Your task to perform on an android device: turn pop-ups on in chrome Image 0: 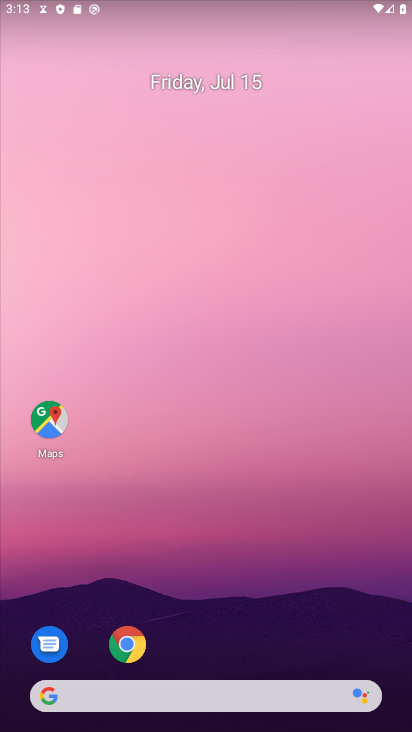
Step 0: drag from (292, 582) to (306, 126)
Your task to perform on an android device: turn pop-ups on in chrome Image 1: 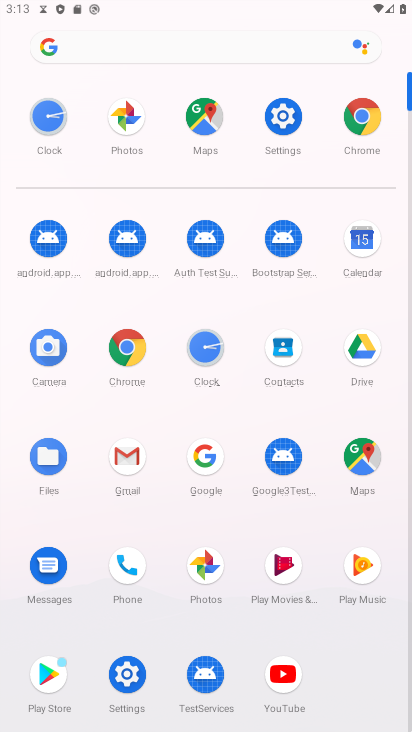
Step 1: click (120, 337)
Your task to perform on an android device: turn pop-ups on in chrome Image 2: 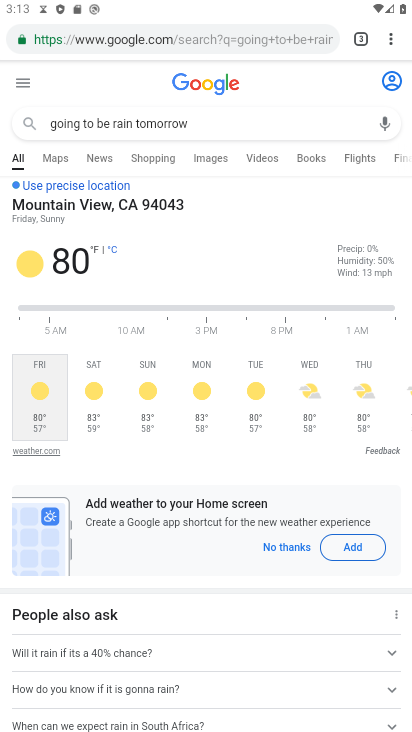
Step 2: drag from (383, 39) to (256, 440)
Your task to perform on an android device: turn pop-ups on in chrome Image 3: 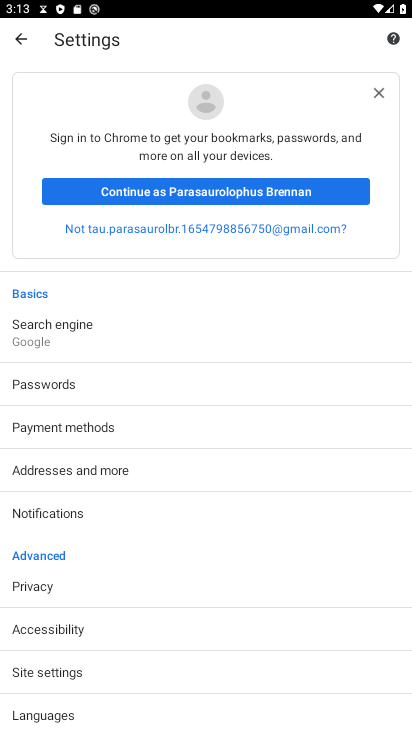
Step 3: click (98, 660)
Your task to perform on an android device: turn pop-ups on in chrome Image 4: 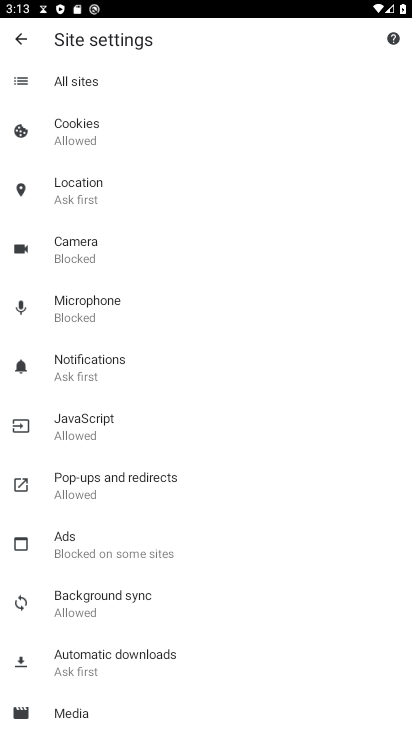
Step 4: click (110, 477)
Your task to perform on an android device: turn pop-ups on in chrome Image 5: 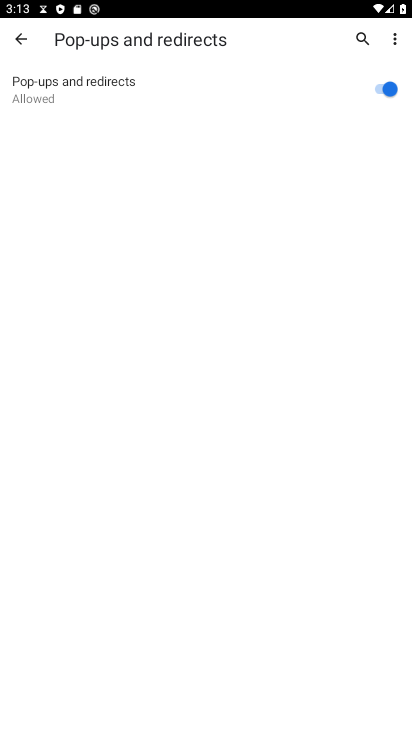
Step 5: task complete